Your task to perform on an android device: Open settings on Google Maps Image 0: 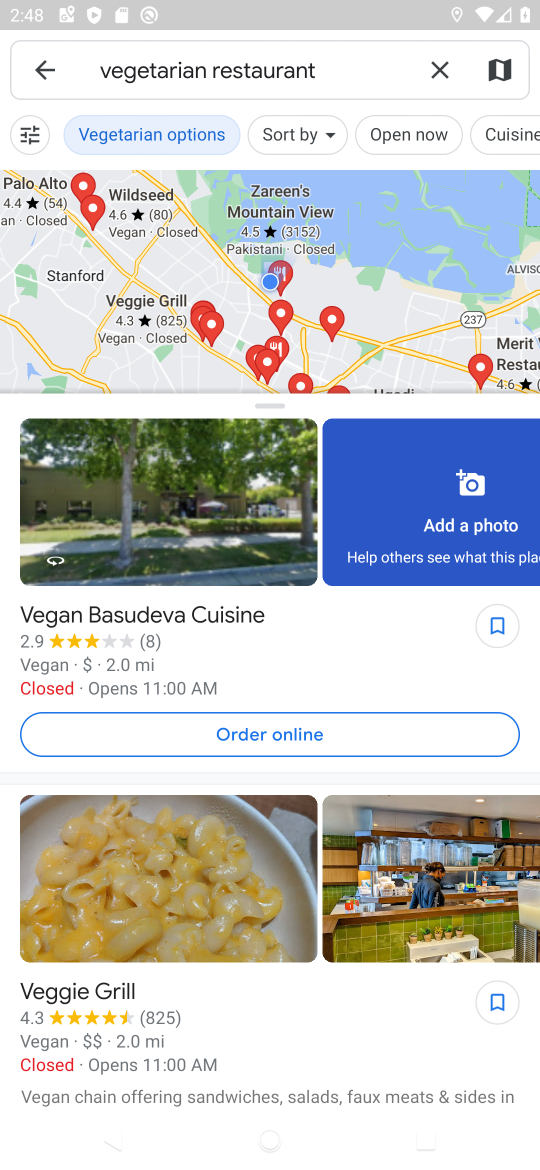
Step 0: click (44, 67)
Your task to perform on an android device: Open settings on Google Maps Image 1: 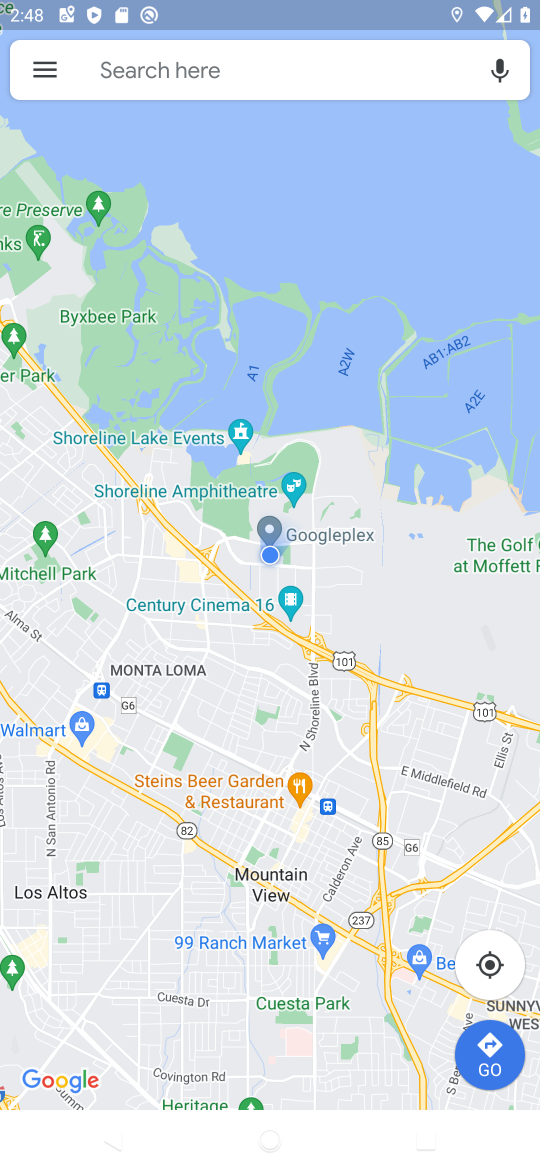
Step 1: click (33, 67)
Your task to perform on an android device: Open settings on Google Maps Image 2: 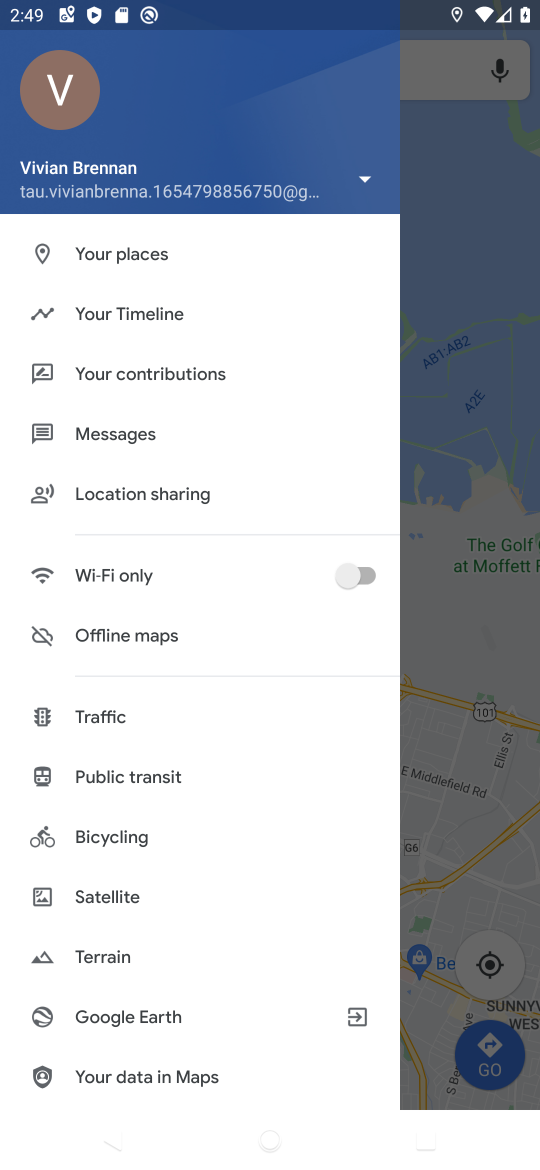
Step 2: drag from (286, 811) to (287, 393)
Your task to perform on an android device: Open settings on Google Maps Image 3: 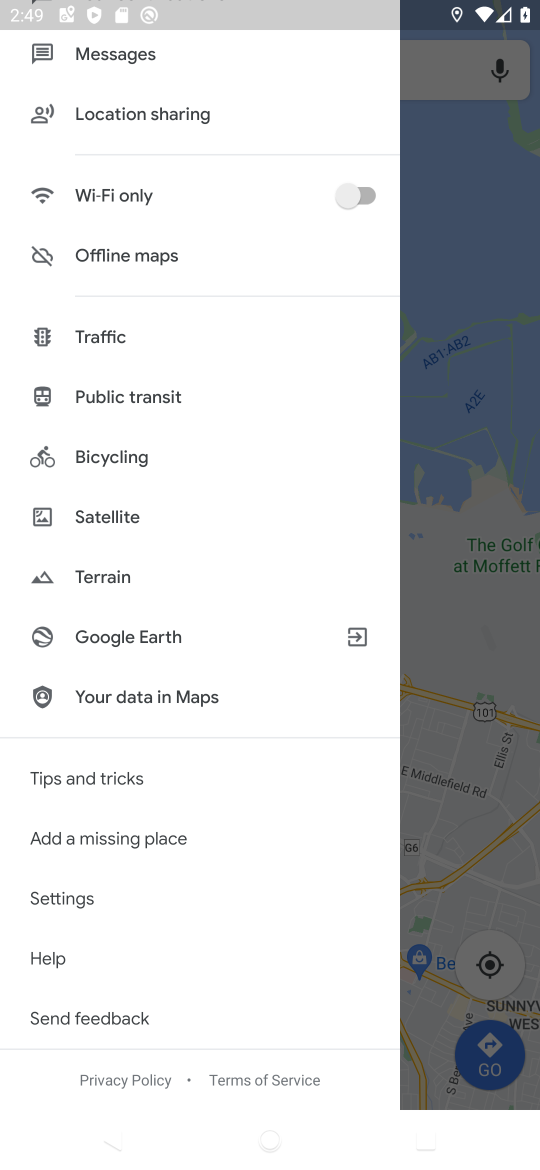
Step 3: click (70, 890)
Your task to perform on an android device: Open settings on Google Maps Image 4: 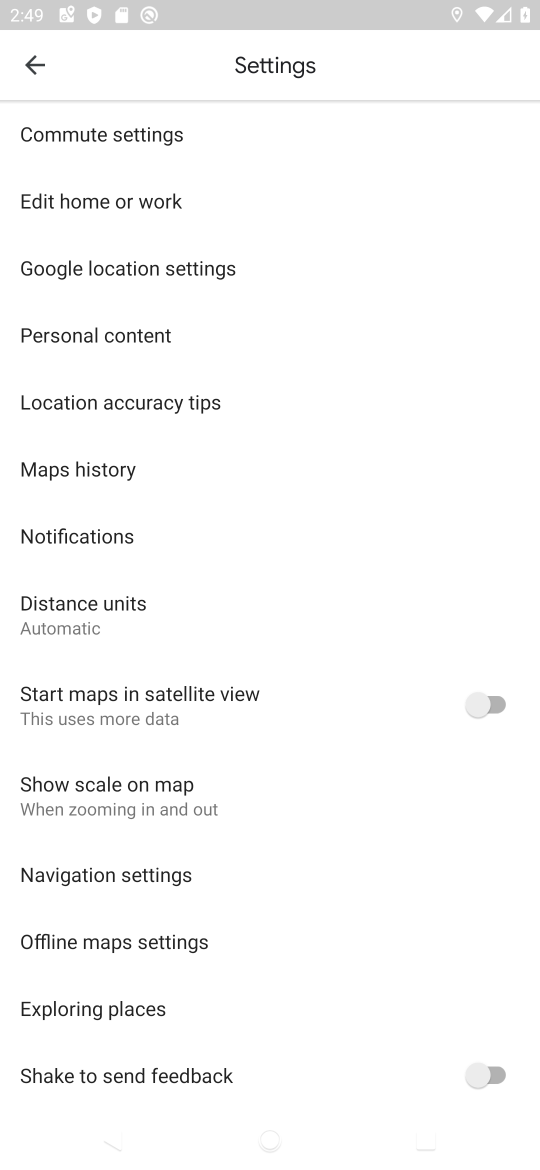
Step 4: task complete